Your task to perform on an android device: turn on the 12-hour format for clock Image 0: 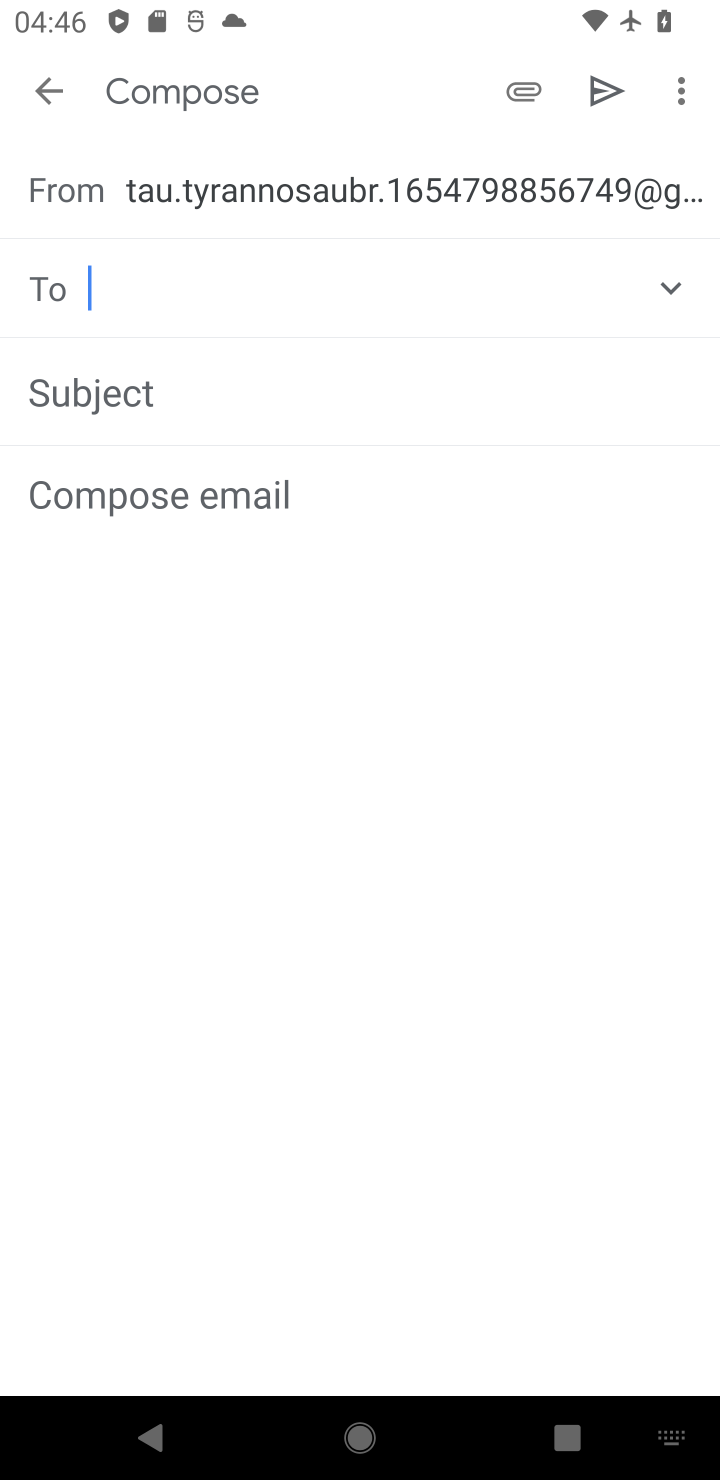
Step 0: press home button
Your task to perform on an android device: turn on the 12-hour format for clock Image 1: 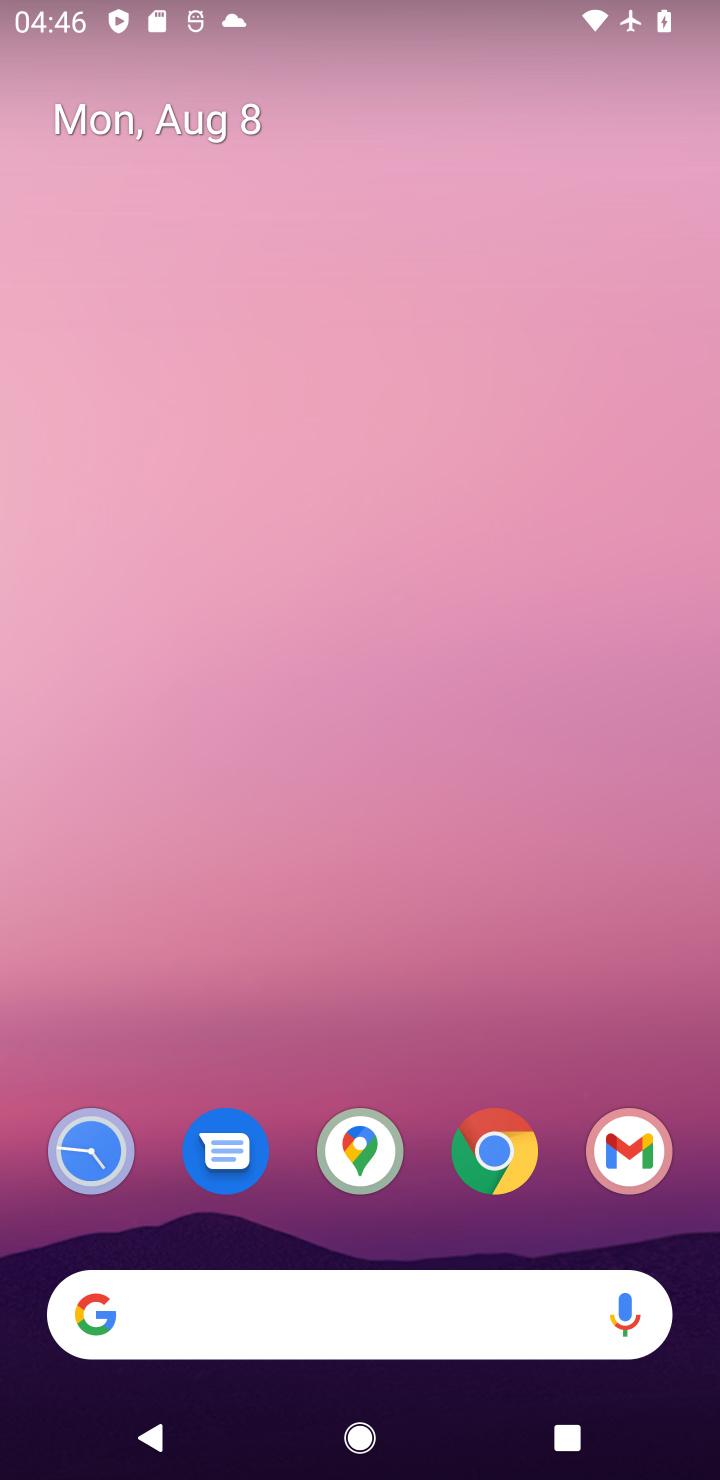
Step 1: click (87, 1157)
Your task to perform on an android device: turn on the 12-hour format for clock Image 2: 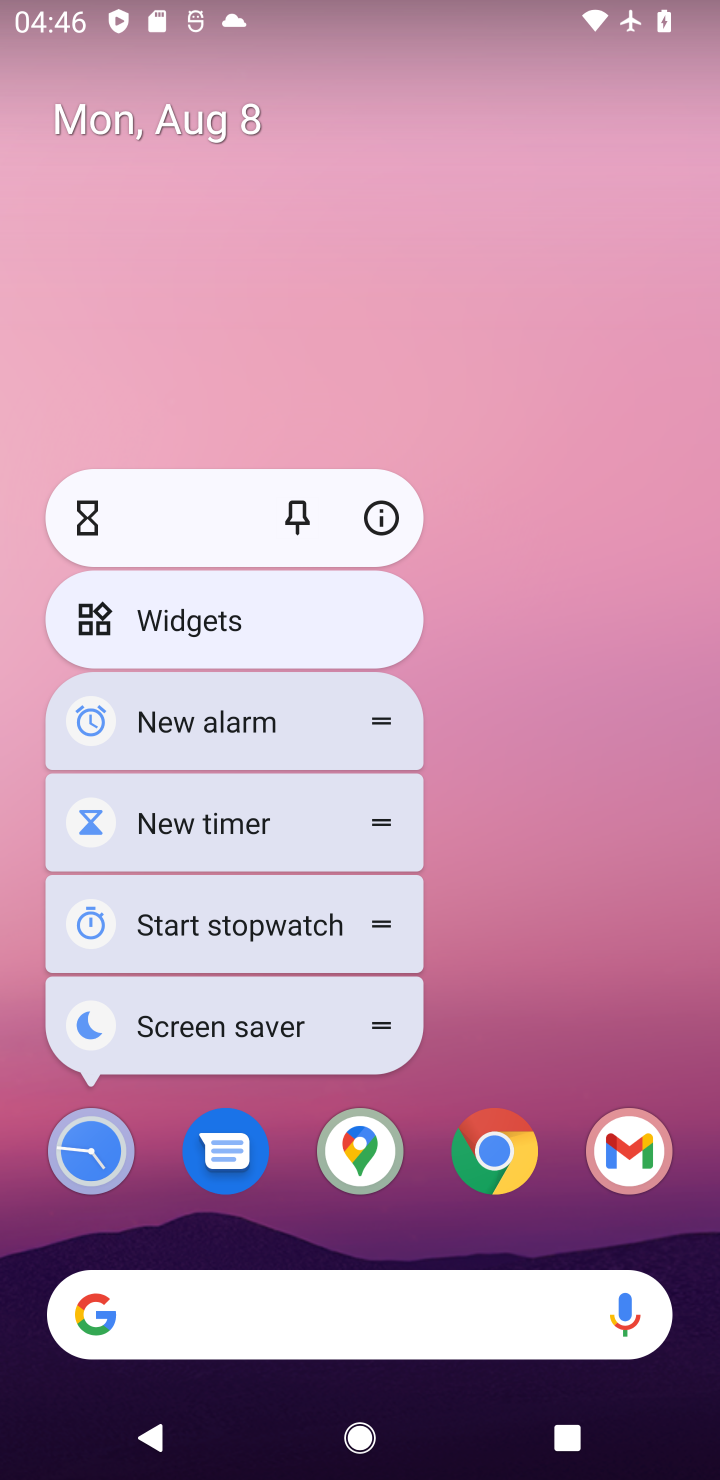
Step 2: click (87, 1157)
Your task to perform on an android device: turn on the 12-hour format for clock Image 3: 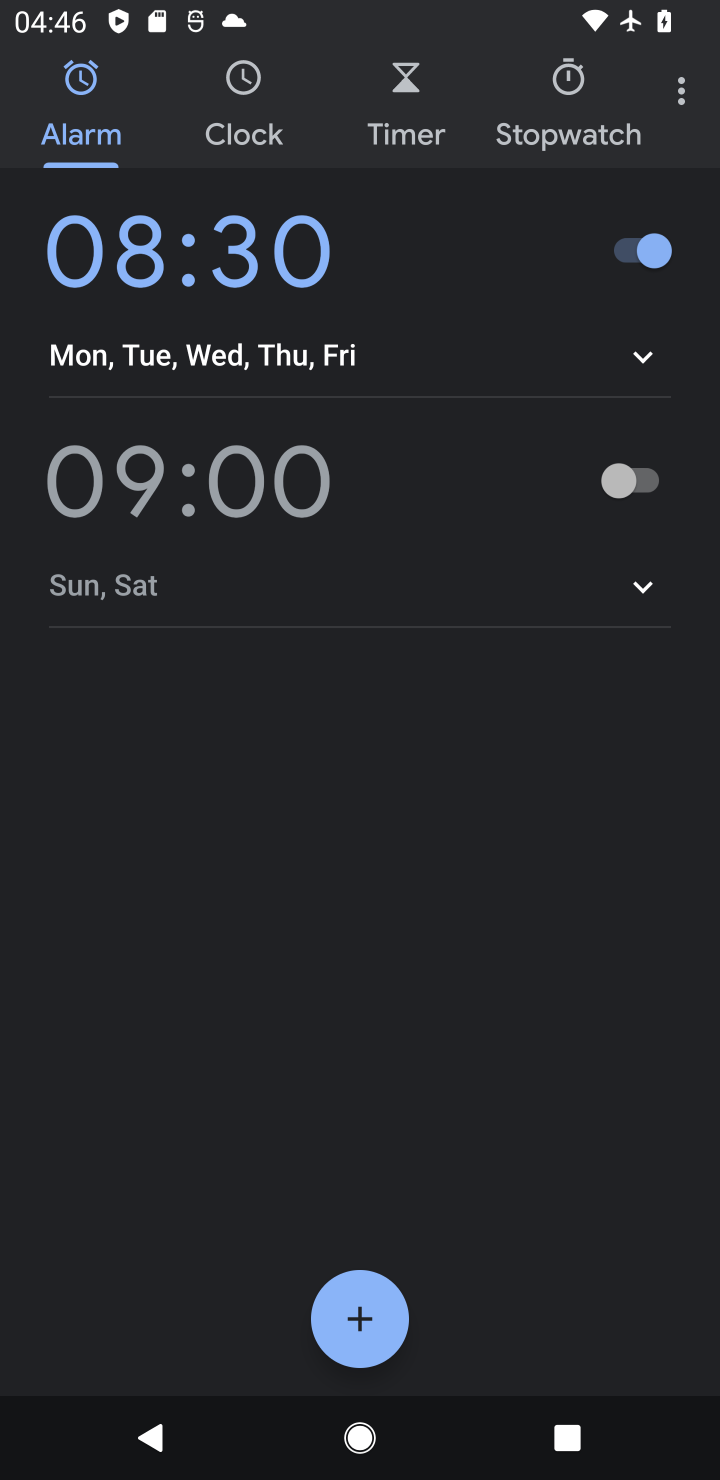
Step 3: click (665, 76)
Your task to perform on an android device: turn on the 12-hour format for clock Image 4: 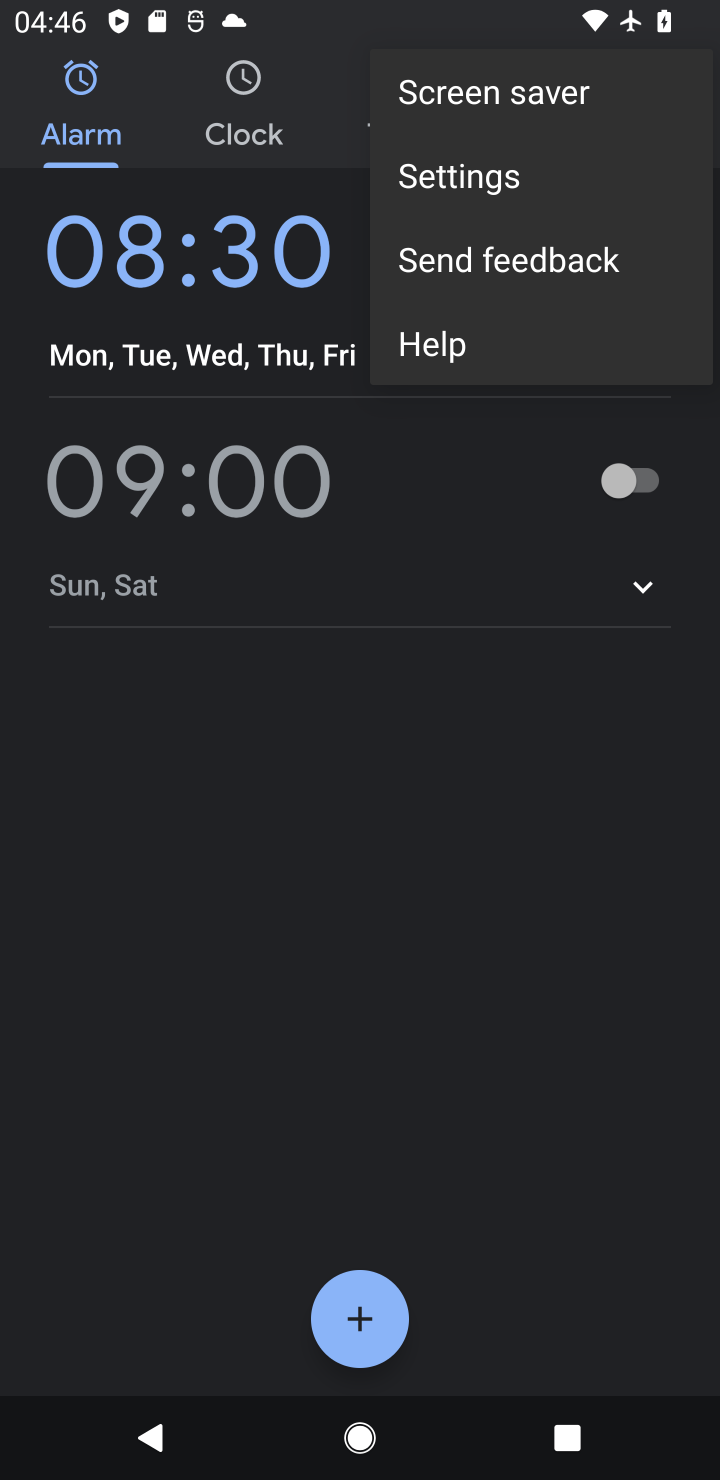
Step 4: click (566, 190)
Your task to perform on an android device: turn on the 12-hour format for clock Image 5: 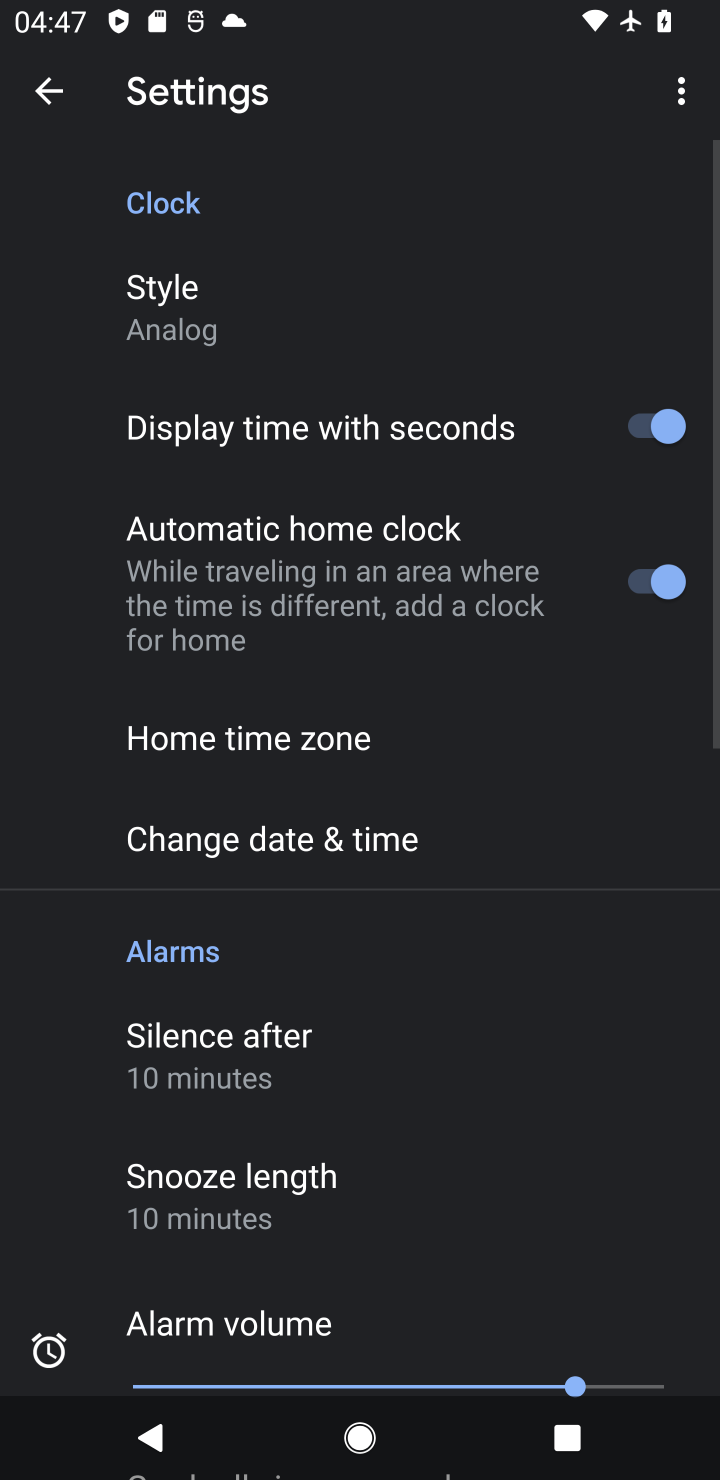
Step 5: click (459, 819)
Your task to perform on an android device: turn on the 12-hour format for clock Image 6: 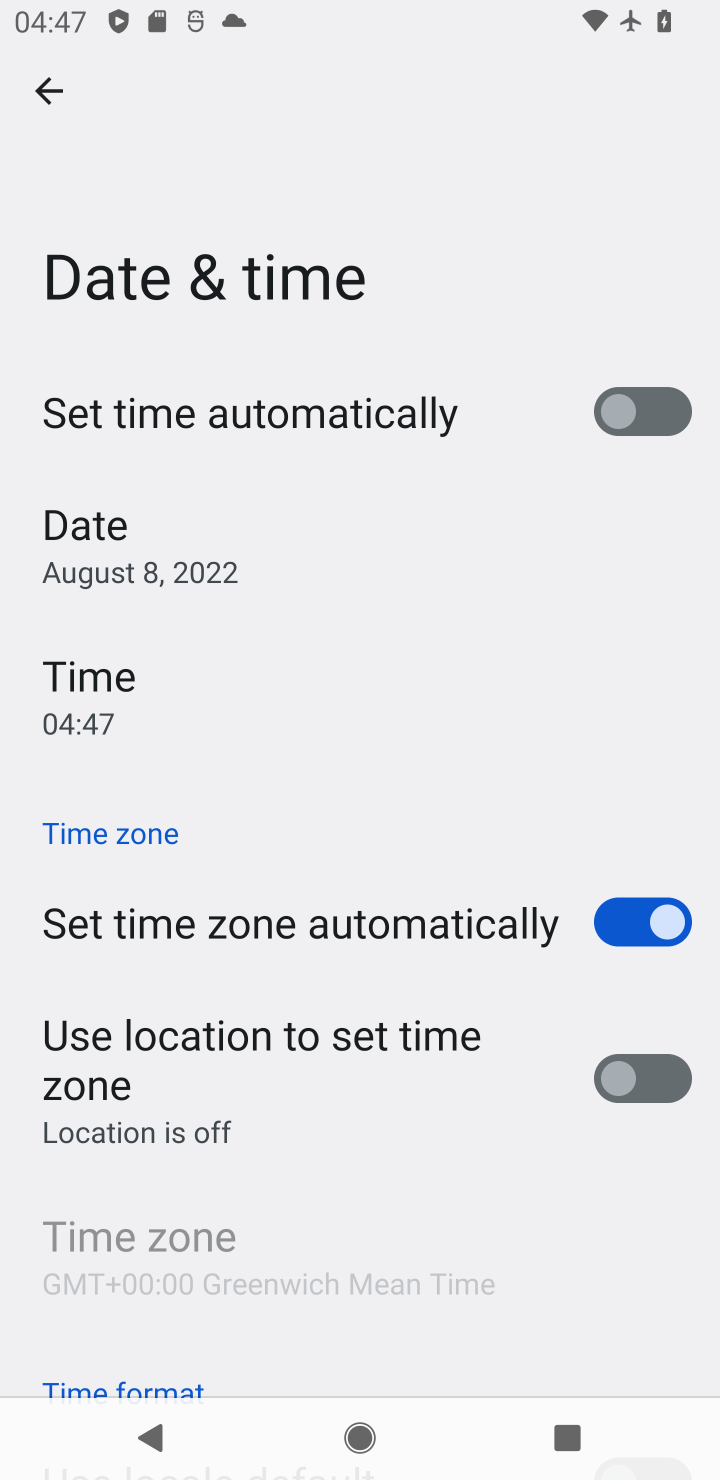
Step 6: drag from (281, 1223) to (301, 512)
Your task to perform on an android device: turn on the 12-hour format for clock Image 7: 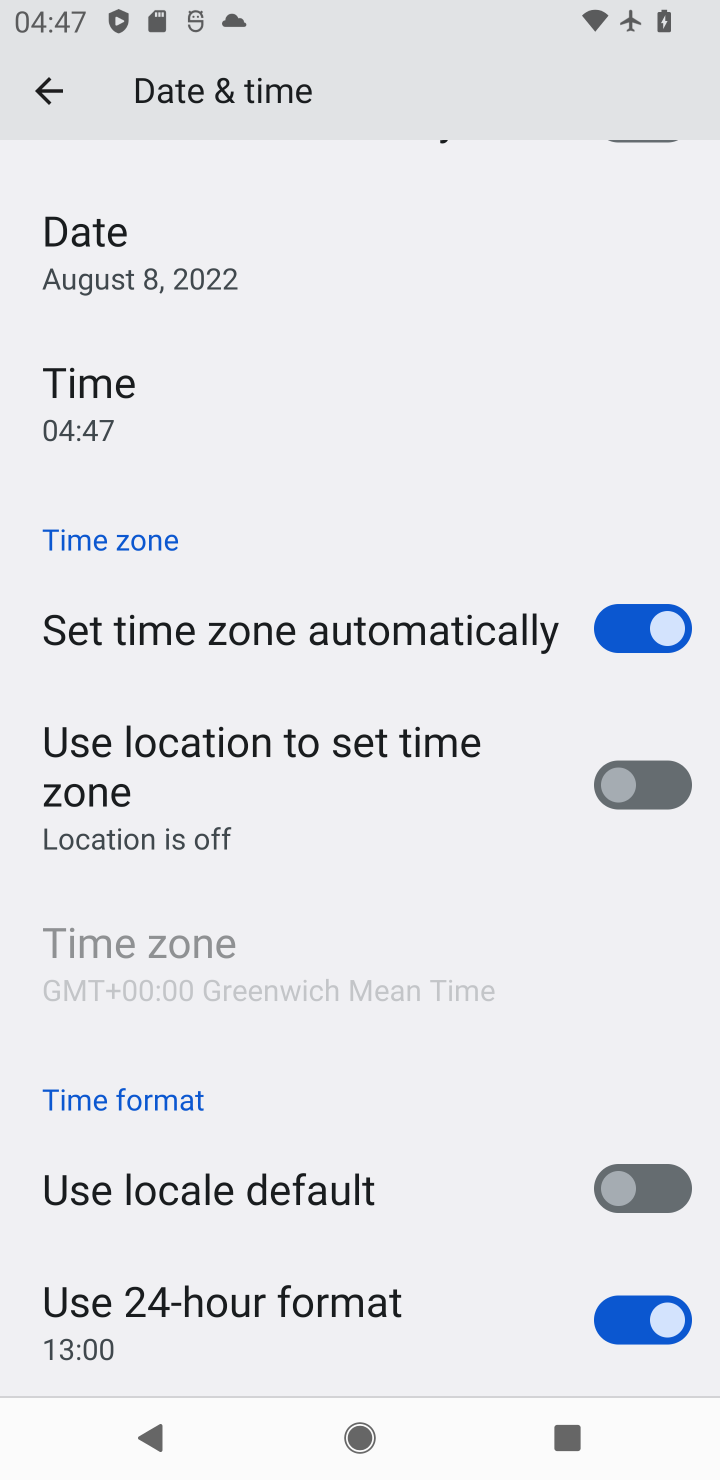
Step 7: click (637, 1308)
Your task to perform on an android device: turn on the 12-hour format for clock Image 8: 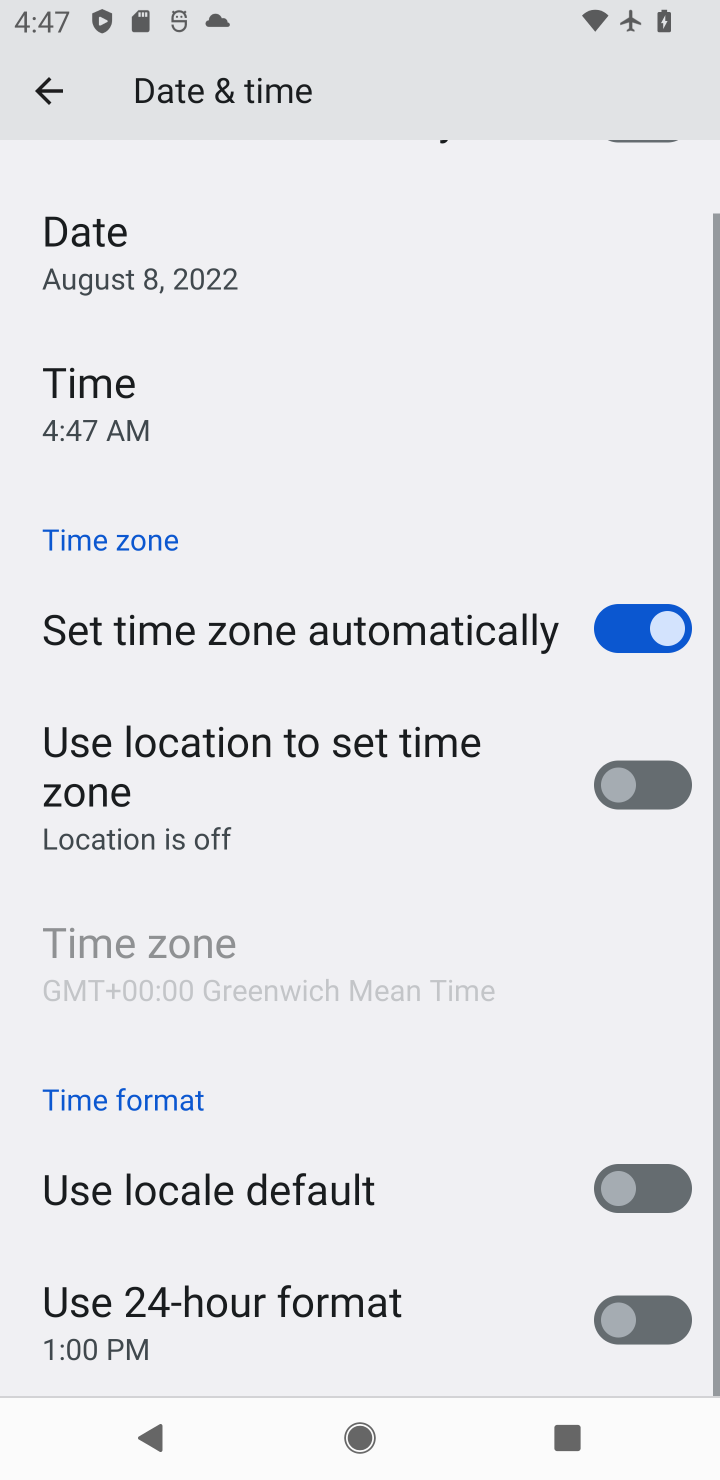
Step 8: click (667, 1177)
Your task to perform on an android device: turn on the 12-hour format for clock Image 9: 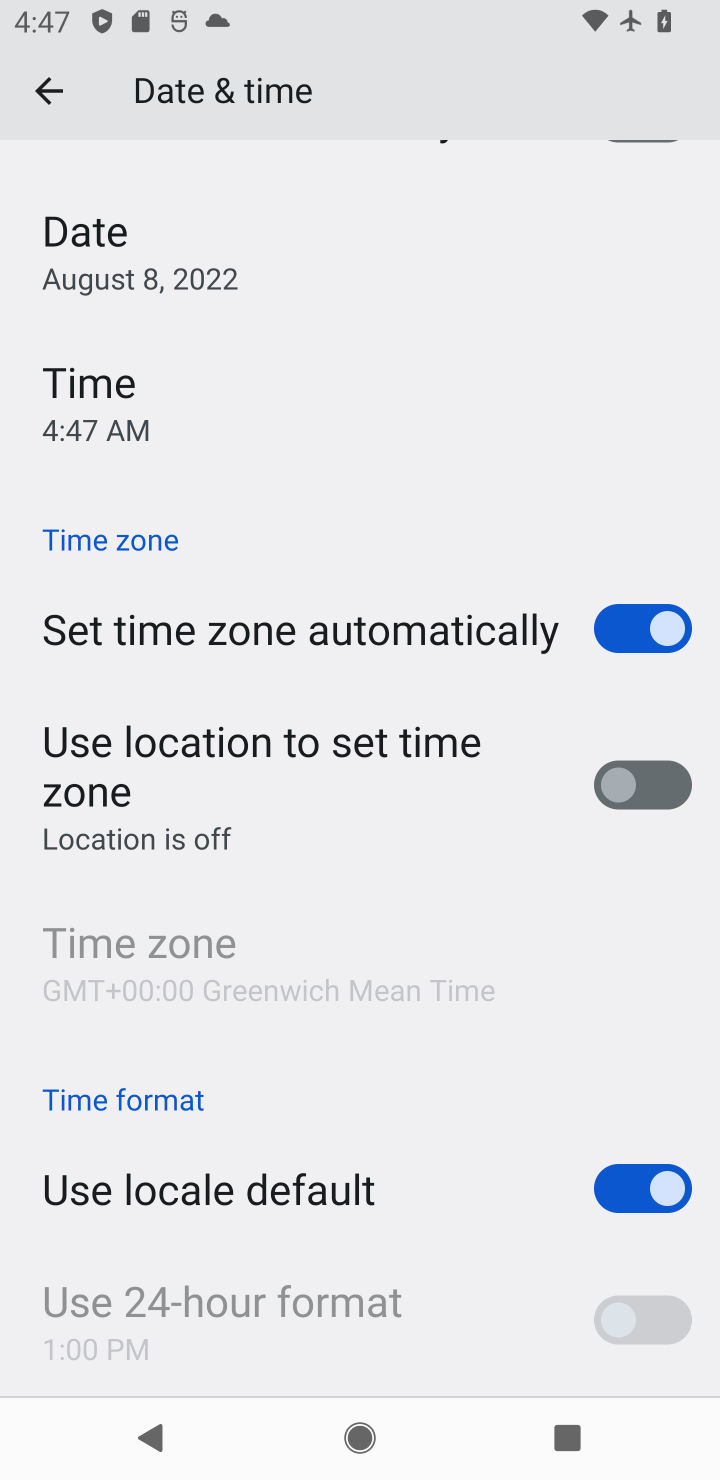
Step 9: task complete